Your task to perform on an android device: Clear all items from cart on amazon. Add "razer nari" to the cart on amazon Image 0: 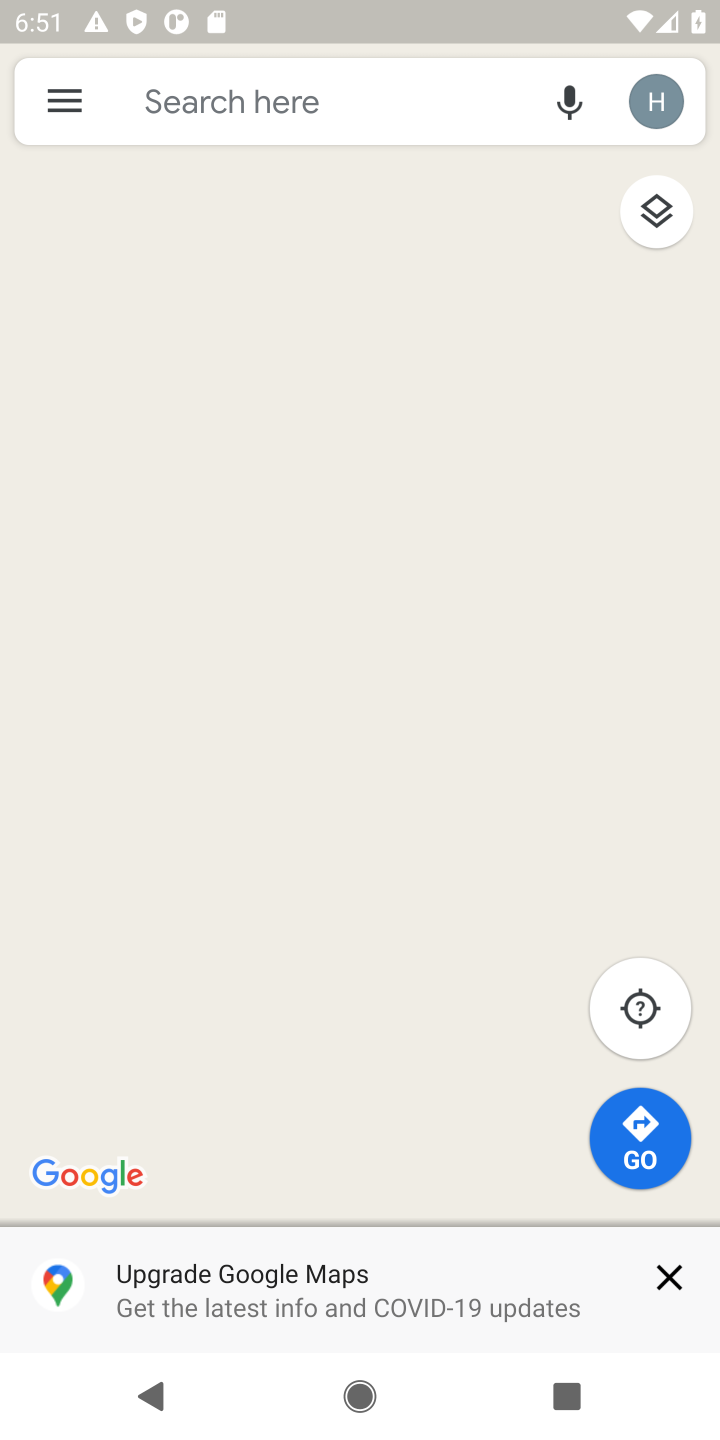
Step 0: press home button
Your task to perform on an android device: Clear all items from cart on amazon. Add "razer nari" to the cart on amazon Image 1: 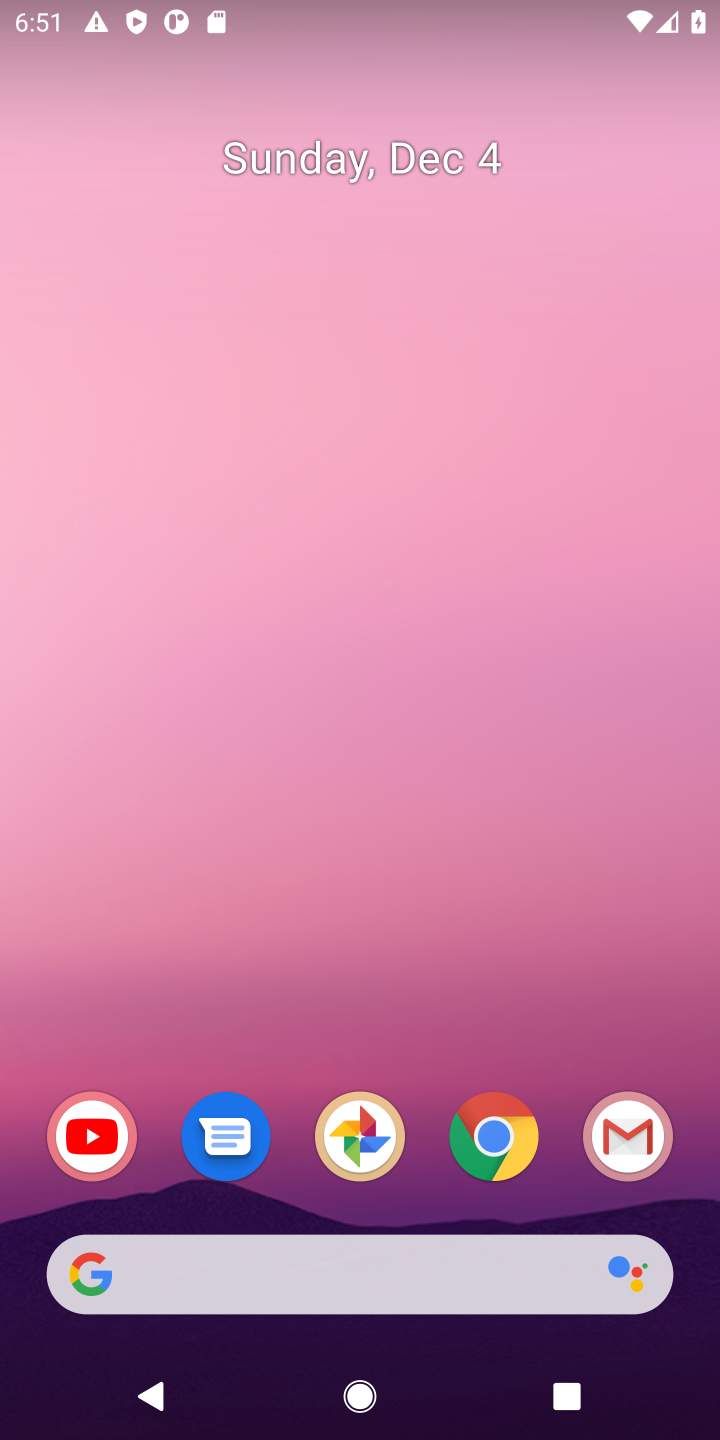
Step 1: click (497, 1146)
Your task to perform on an android device: Clear all items from cart on amazon. Add "razer nari" to the cart on amazon Image 2: 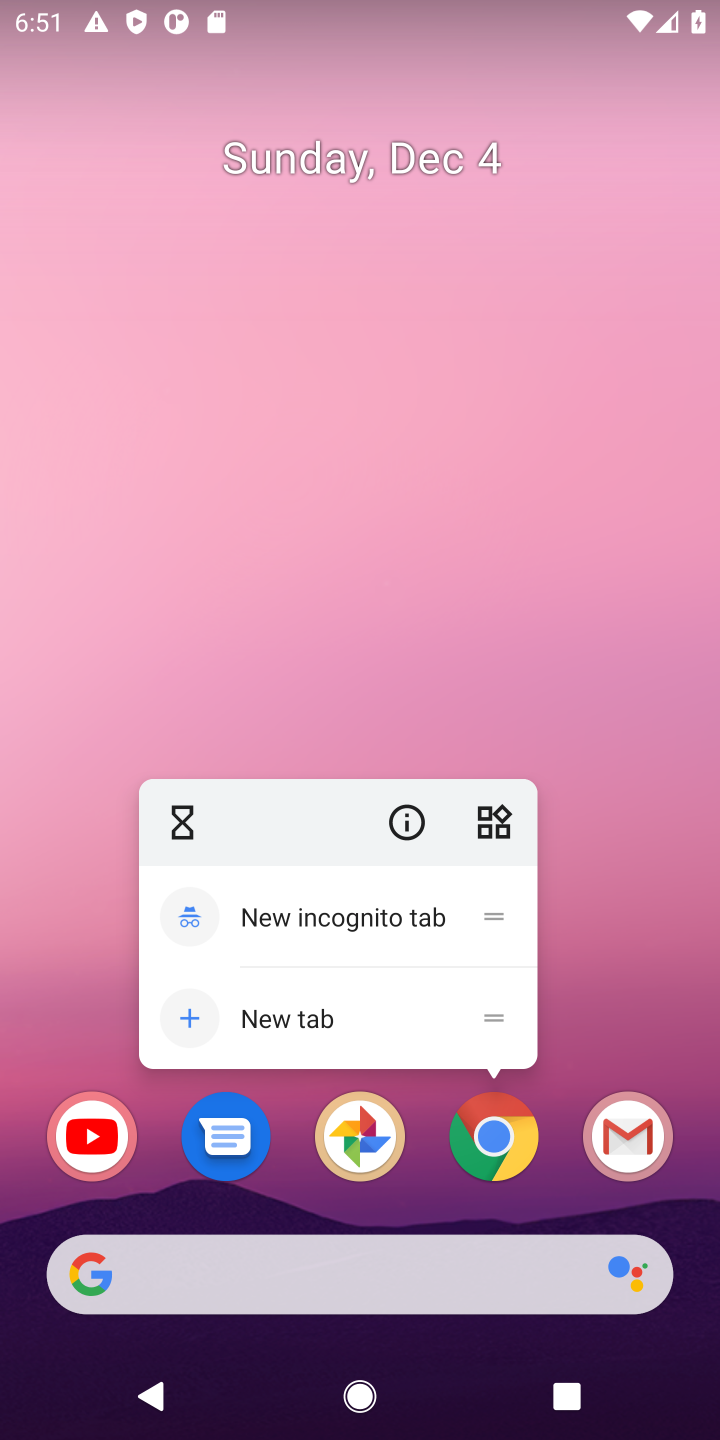
Step 2: click (491, 1148)
Your task to perform on an android device: Clear all items from cart on amazon. Add "razer nari" to the cart on amazon Image 3: 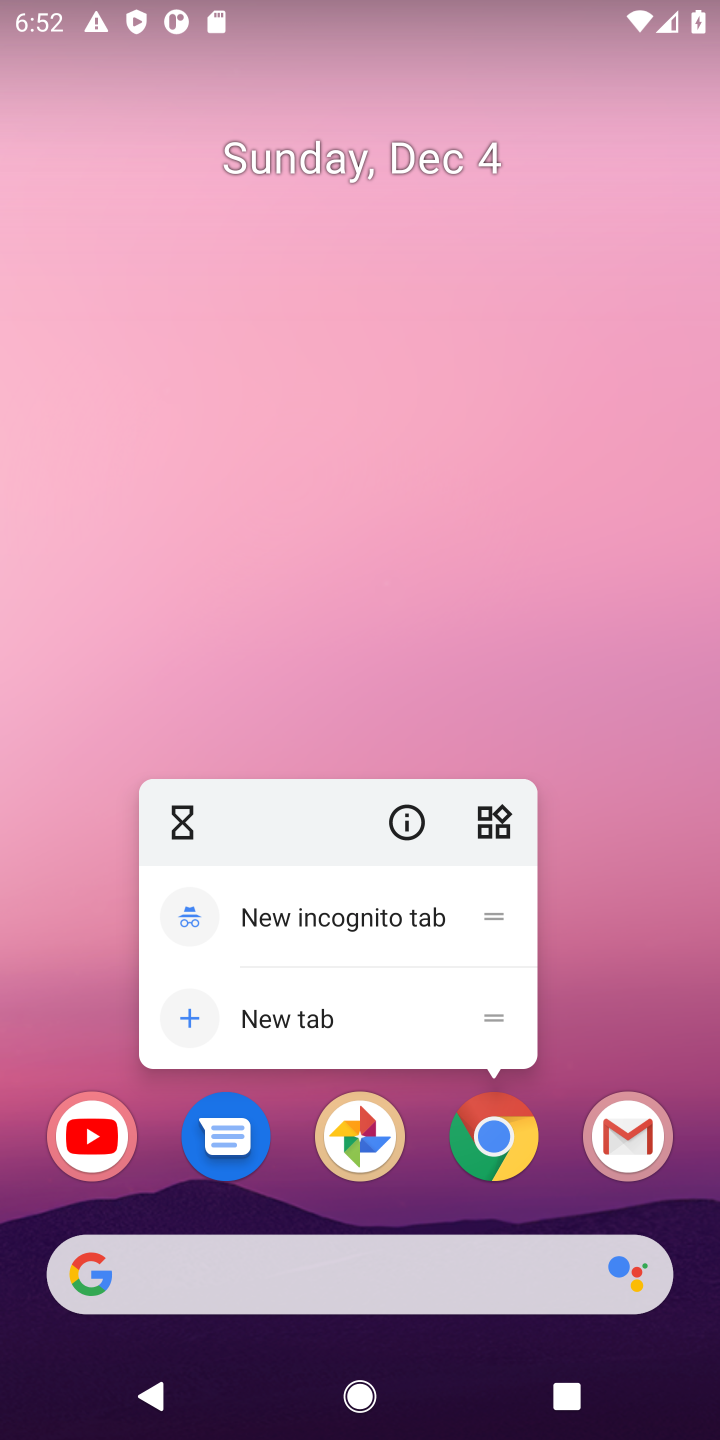
Step 3: click (491, 1148)
Your task to perform on an android device: Clear all items from cart on amazon. Add "razer nari" to the cart on amazon Image 4: 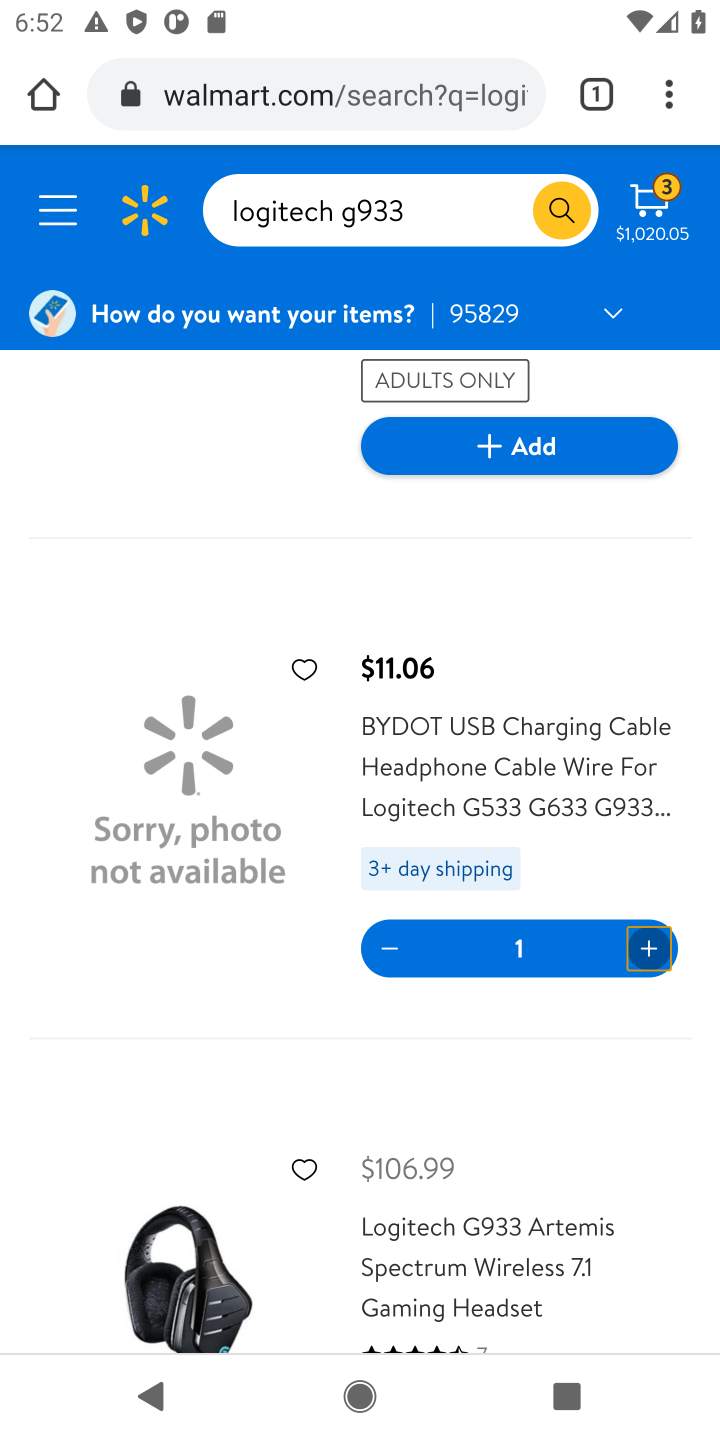
Step 4: click (320, 87)
Your task to perform on an android device: Clear all items from cart on amazon. Add "razer nari" to the cart on amazon Image 5: 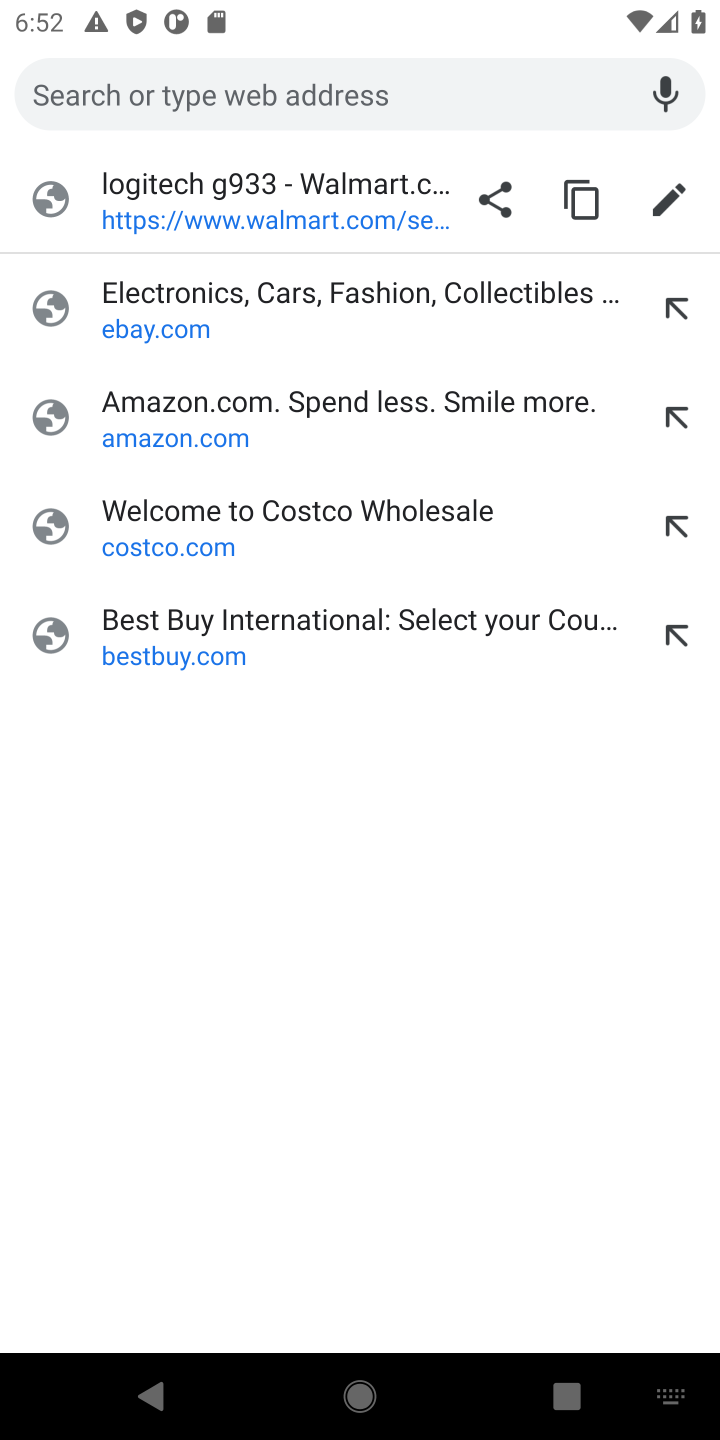
Step 5: click (170, 414)
Your task to perform on an android device: Clear all items from cart on amazon. Add "razer nari" to the cart on amazon Image 6: 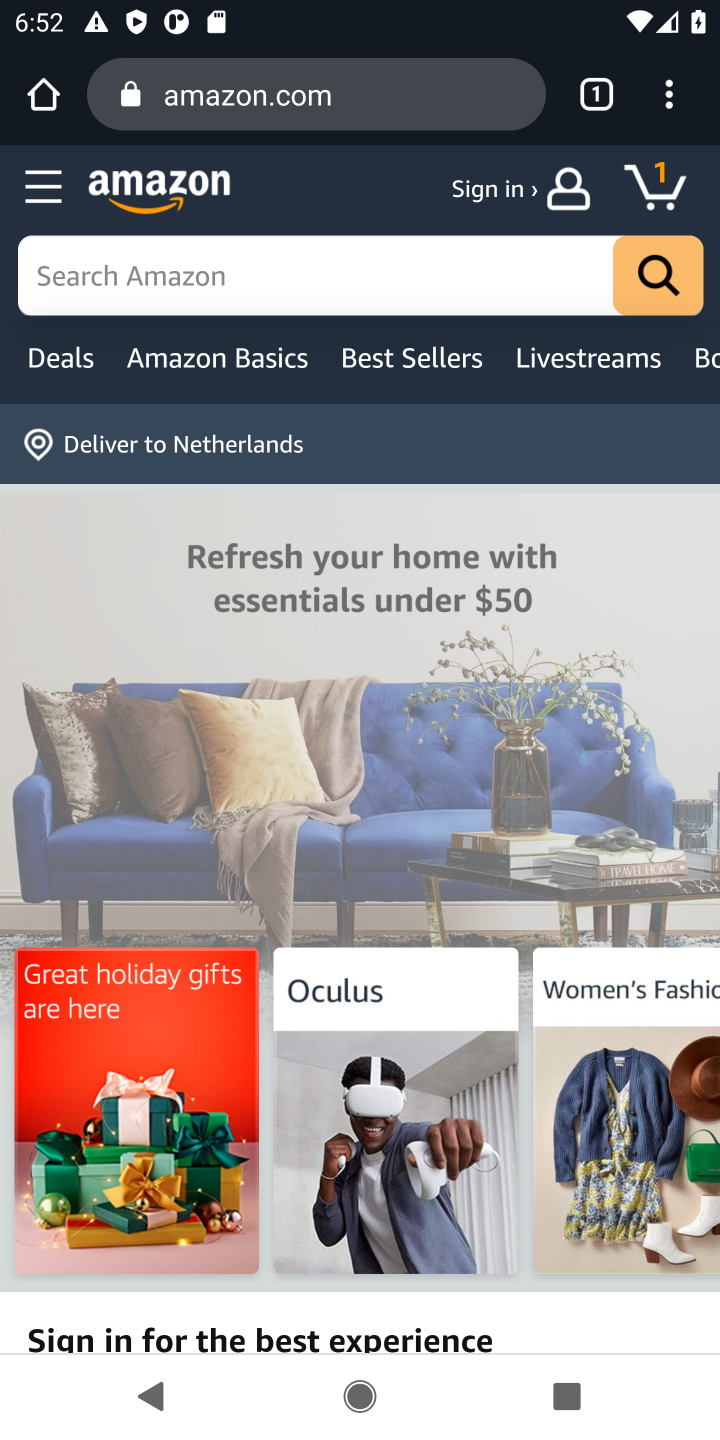
Step 6: click (664, 196)
Your task to perform on an android device: Clear all items from cart on amazon. Add "razer nari" to the cart on amazon Image 7: 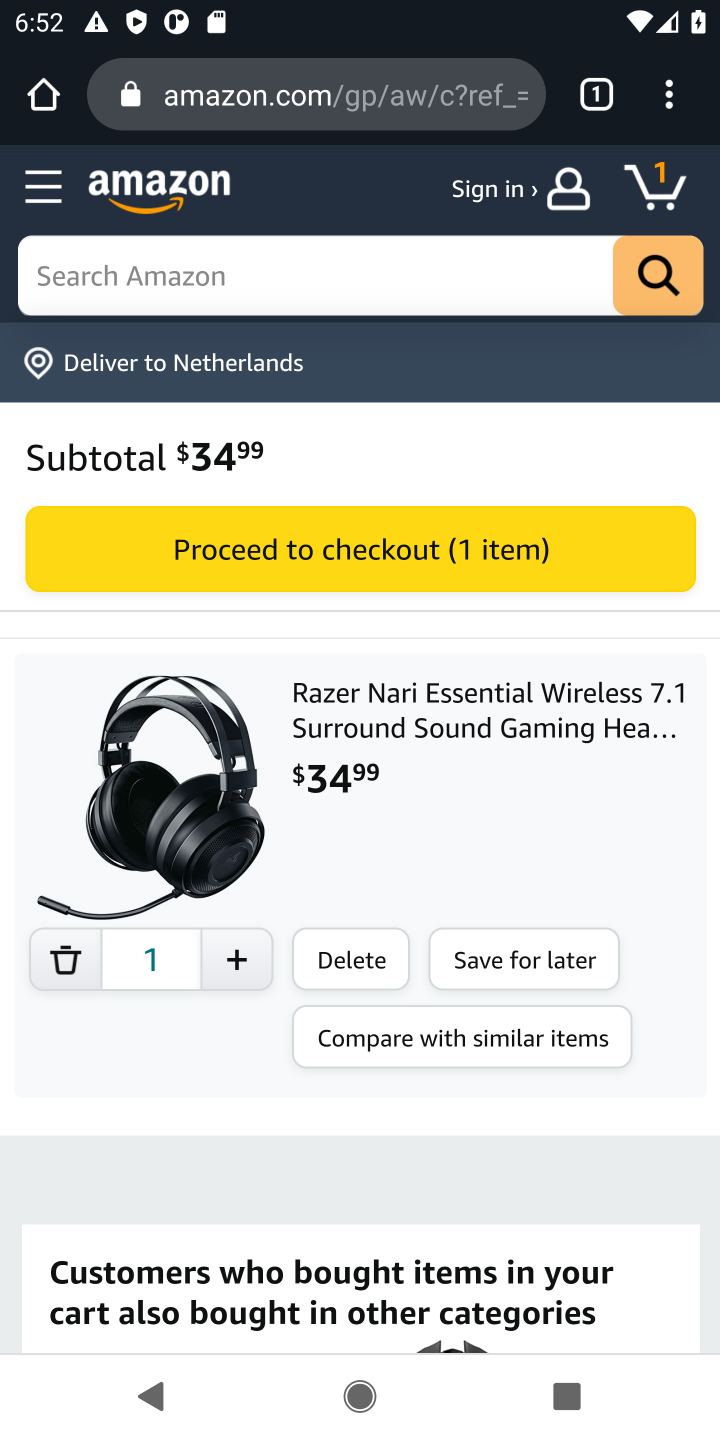
Step 7: click (358, 967)
Your task to perform on an android device: Clear all items from cart on amazon. Add "razer nari" to the cart on amazon Image 8: 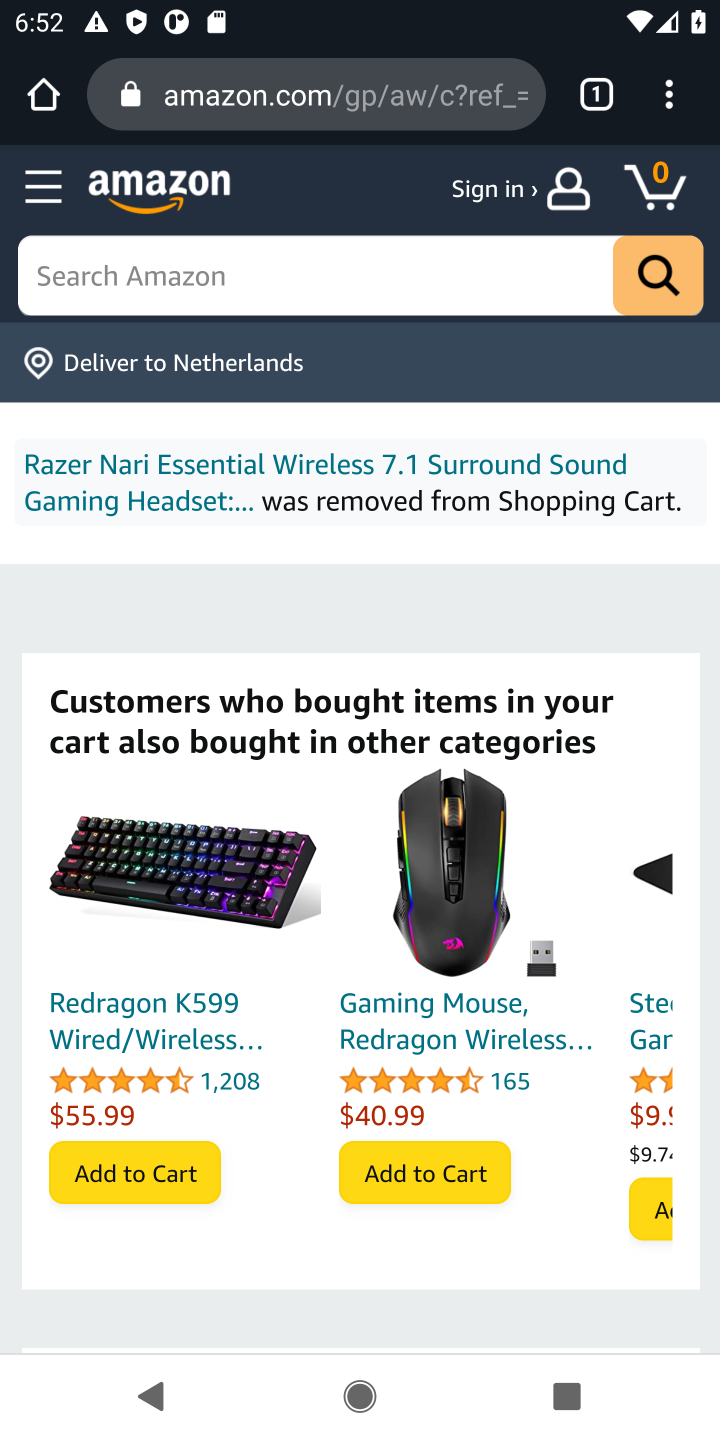
Step 8: click (115, 287)
Your task to perform on an android device: Clear all items from cart on amazon. Add "razer nari" to the cart on amazon Image 9: 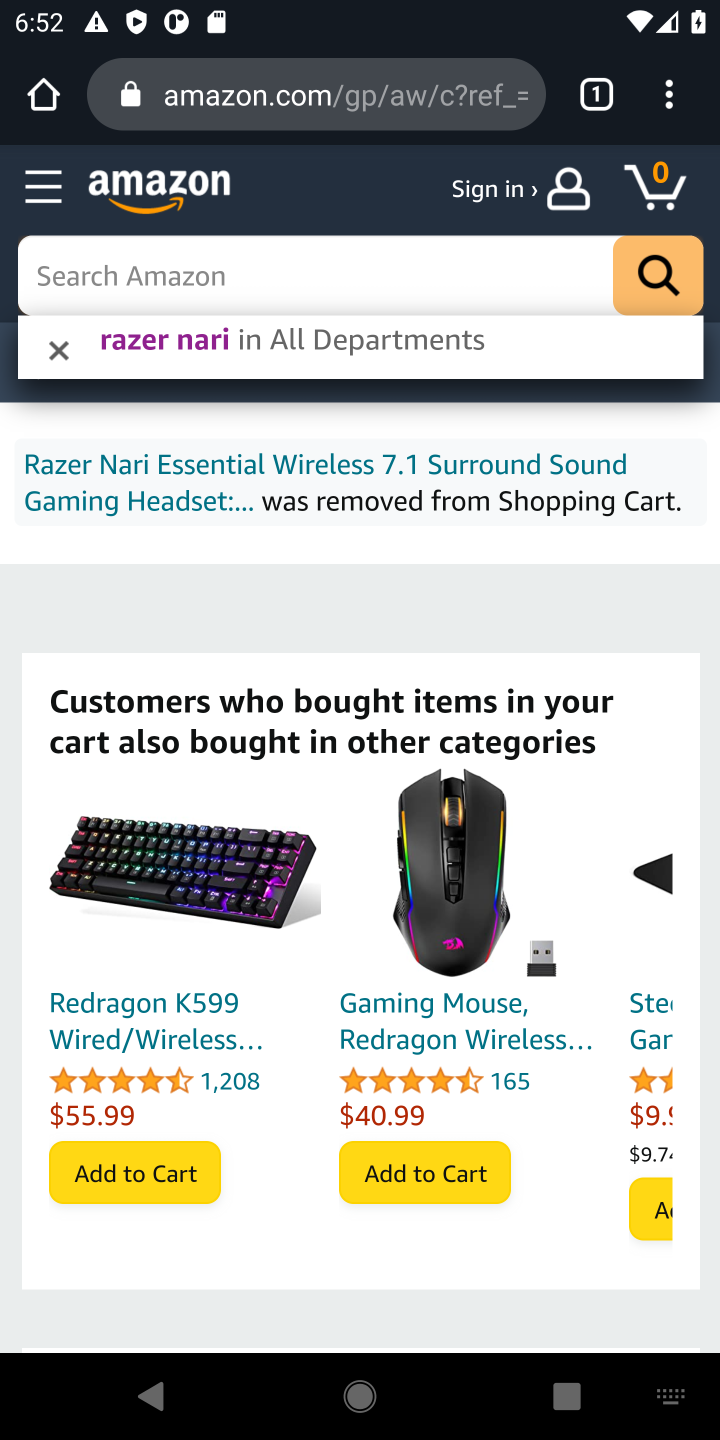
Step 9: type "razer nari"
Your task to perform on an android device: Clear all items from cart on amazon. Add "razer nari" to the cart on amazon Image 10: 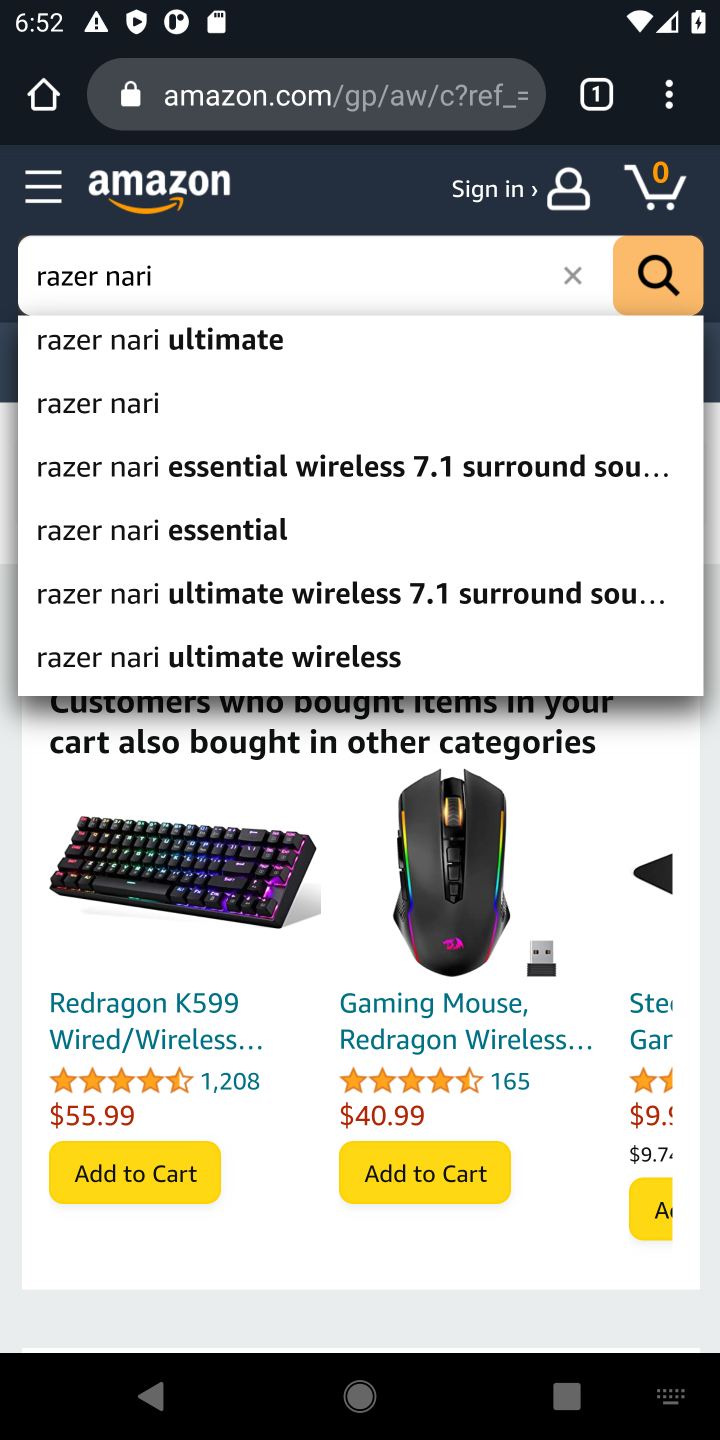
Step 10: click (133, 412)
Your task to perform on an android device: Clear all items from cart on amazon. Add "razer nari" to the cart on amazon Image 11: 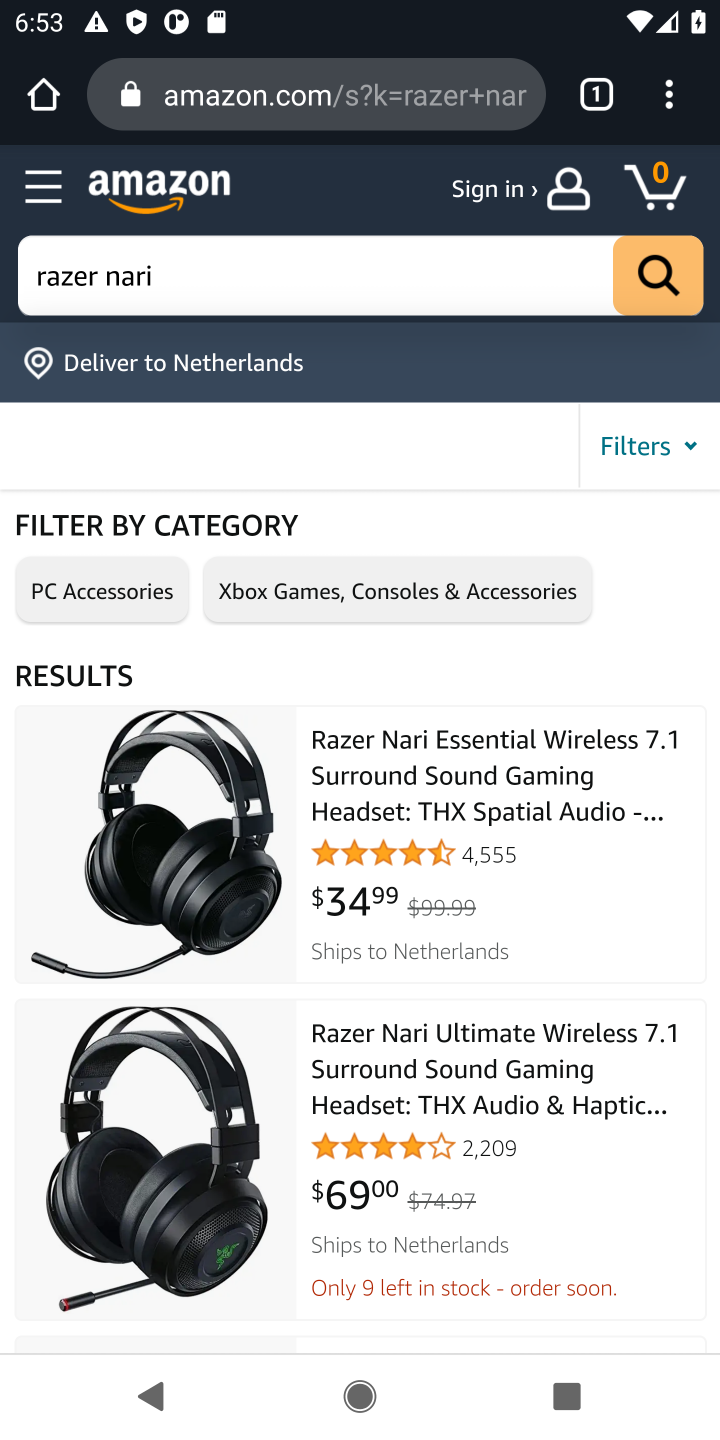
Step 11: click (434, 798)
Your task to perform on an android device: Clear all items from cart on amazon. Add "razer nari" to the cart on amazon Image 12: 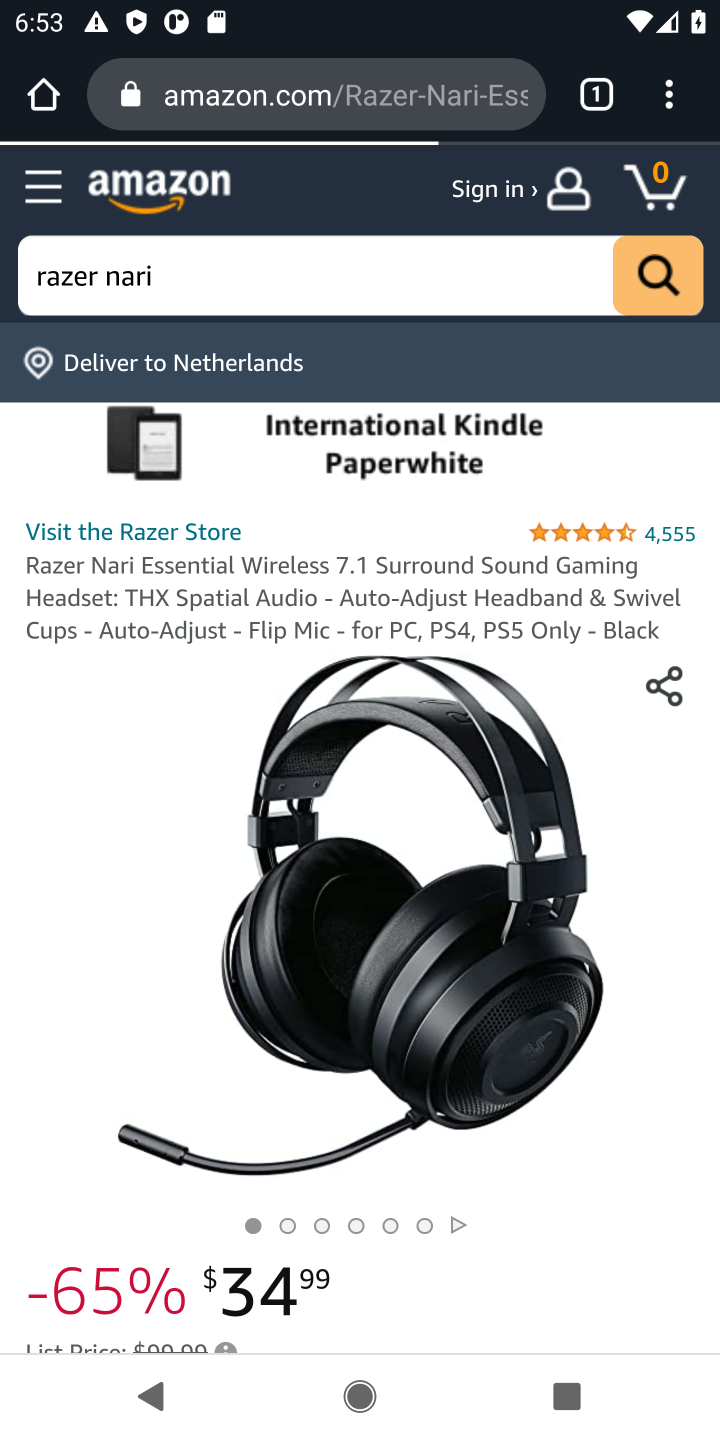
Step 12: drag from (553, 1109) to (522, 513)
Your task to perform on an android device: Clear all items from cart on amazon. Add "razer nari" to the cart on amazon Image 13: 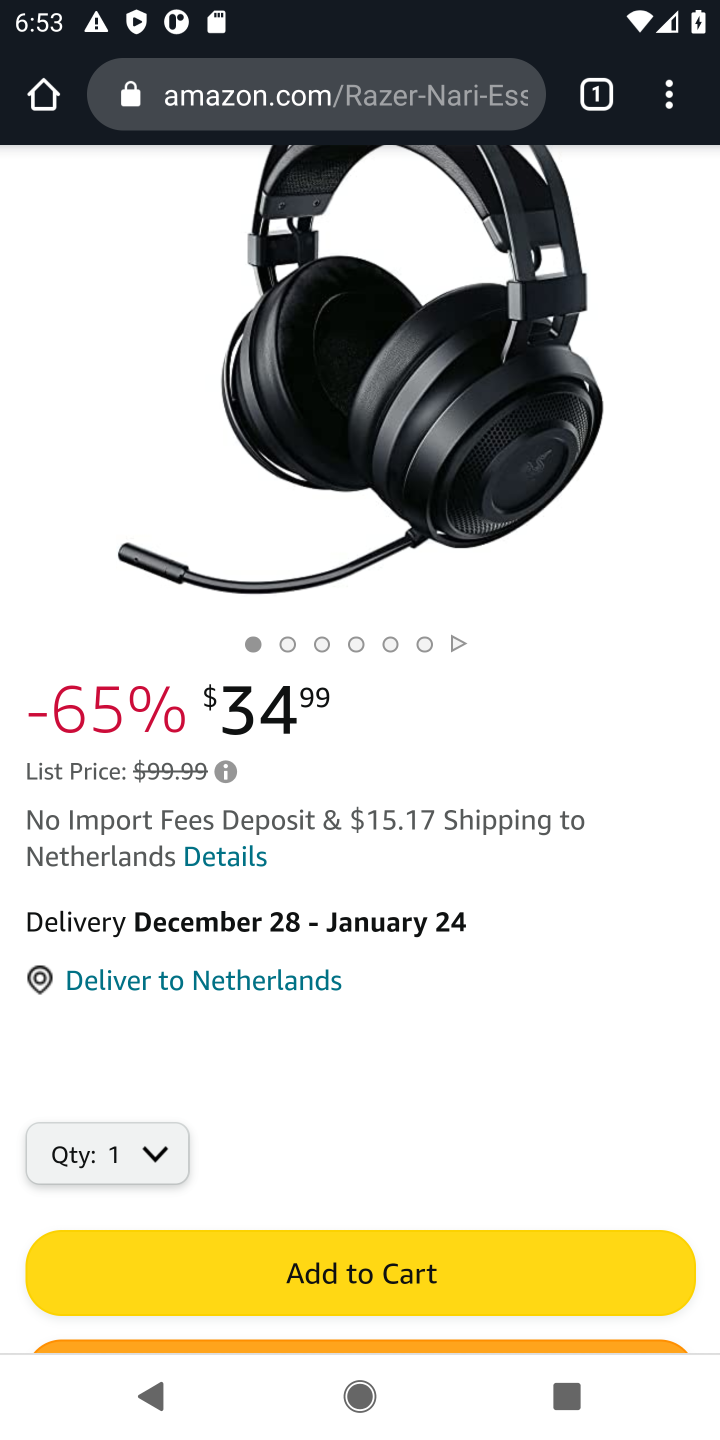
Step 13: drag from (604, 887) to (573, 530)
Your task to perform on an android device: Clear all items from cart on amazon. Add "razer nari" to the cart on amazon Image 14: 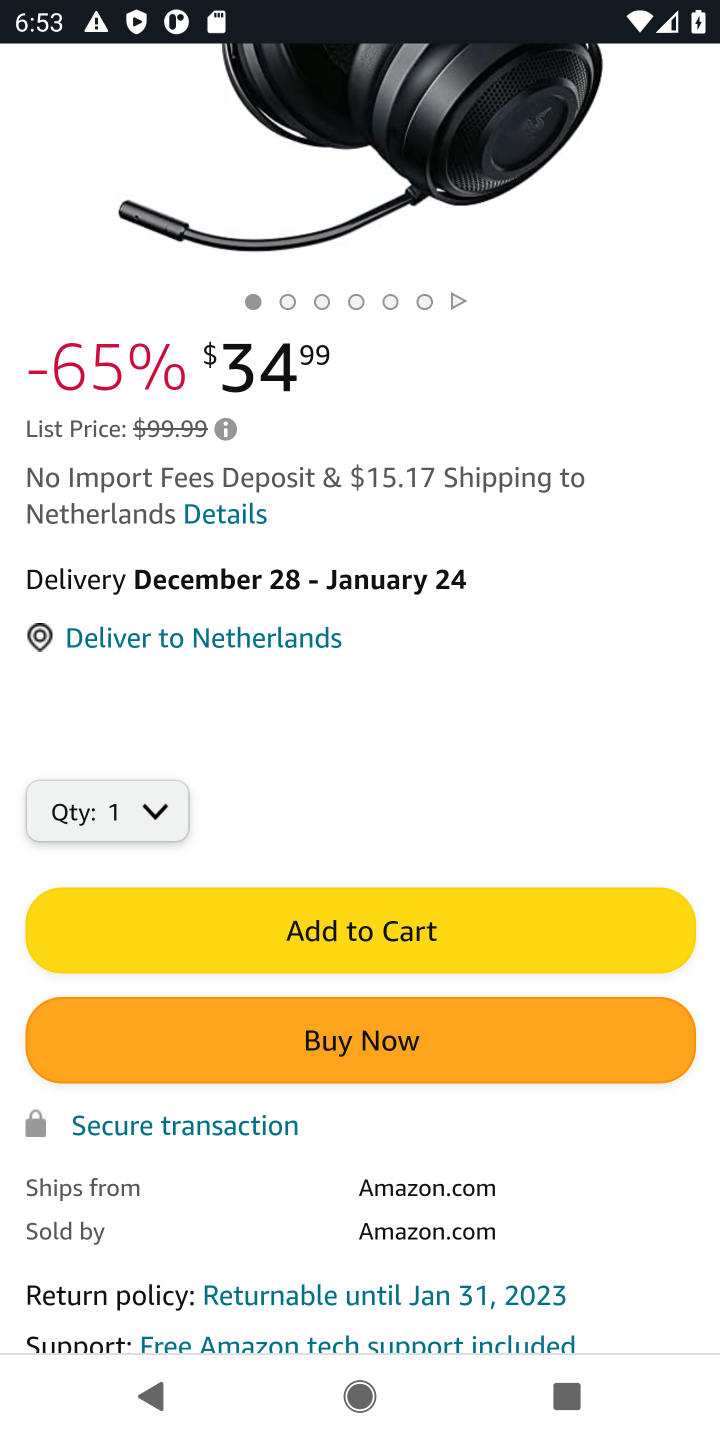
Step 14: click (348, 941)
Your task to perform on an android device: Clear all items from cart on amazon. Add "razer nari" to the cart on amazon Image 15: 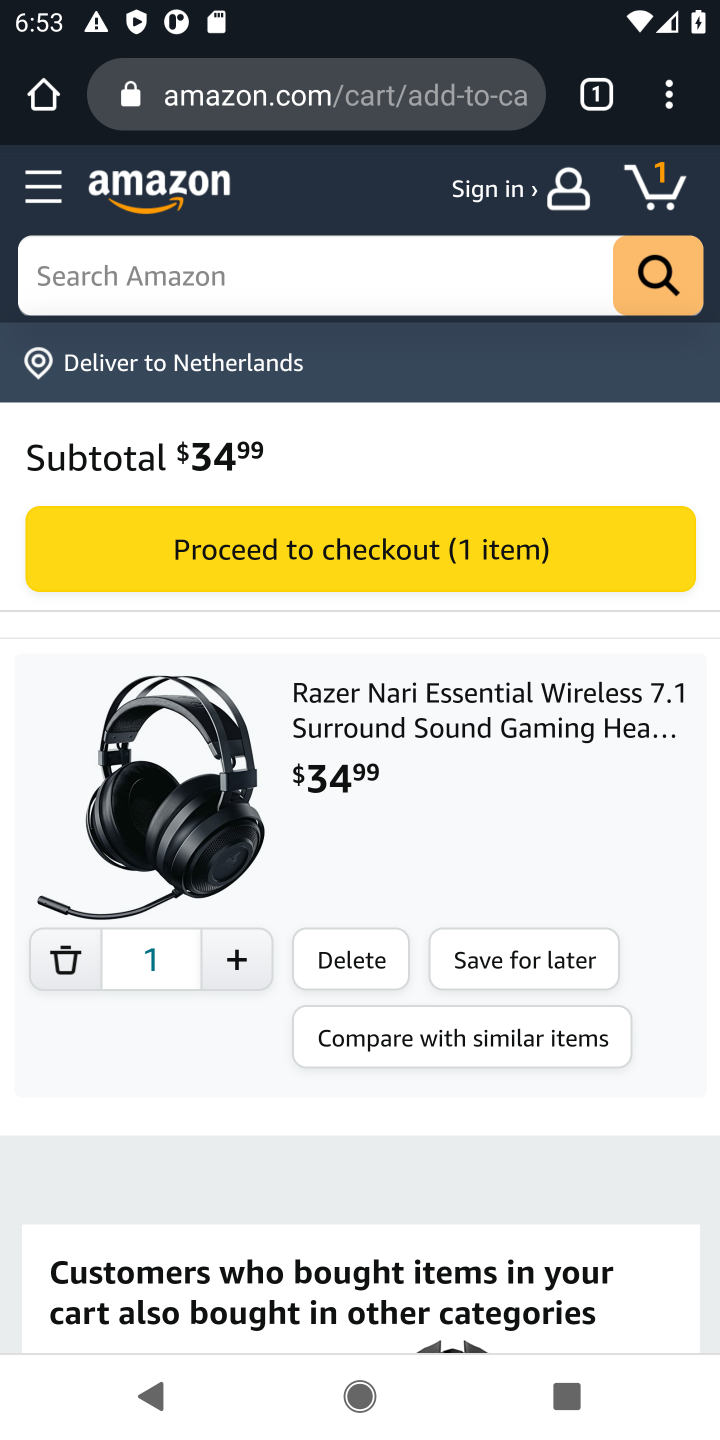
Step 15: task complete